Your task to perform on an android device: move a message to another label in the gmail app Image 0: 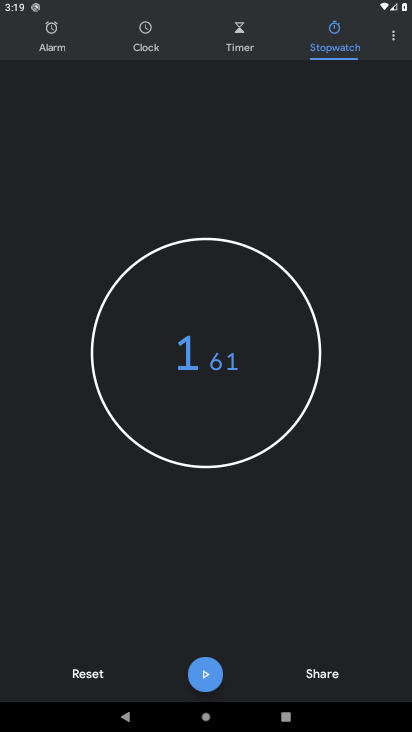
Step 0: press home button
Your task to perform on an android device: move a message to another label in the gmail app Image 1: 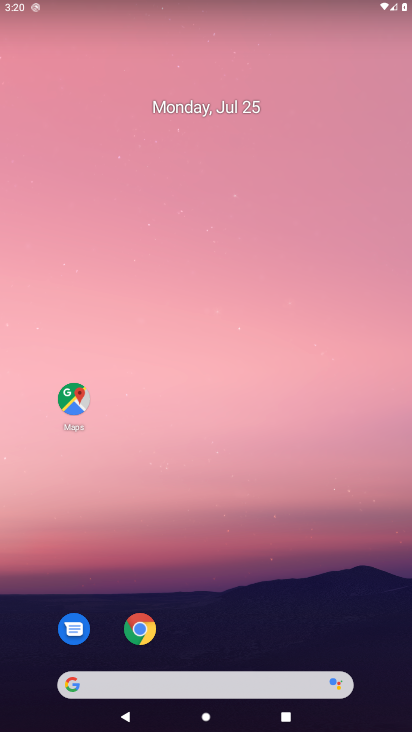
Step 1: drag from (2, 668) to (104, 216)
Your task to perform on an android device: move a message to another label in the gmail app Image 2: 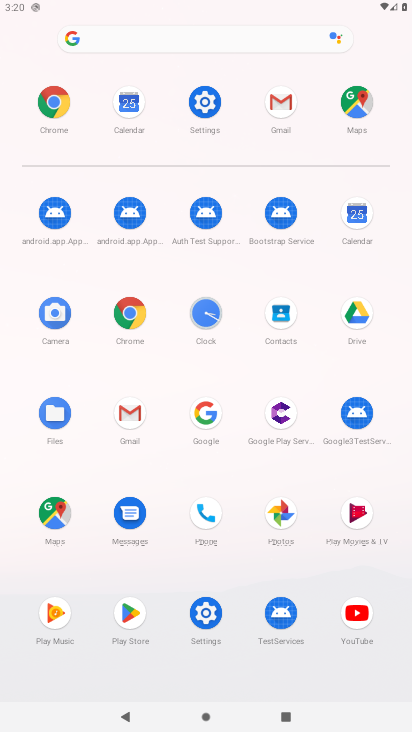
Step 2: click (130, 418)
Your task to perform on an android device: move a message to another label in the gmail app Image 3: 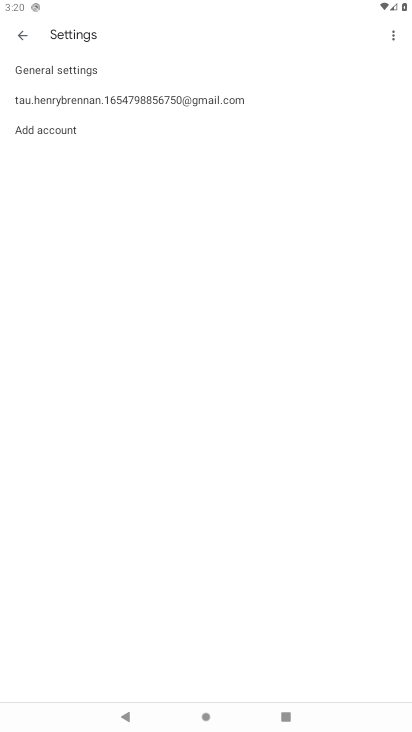
Step 3: click (13, 29)
Your task to perform on an android device: move a message to another label in the gmail app Image 4: 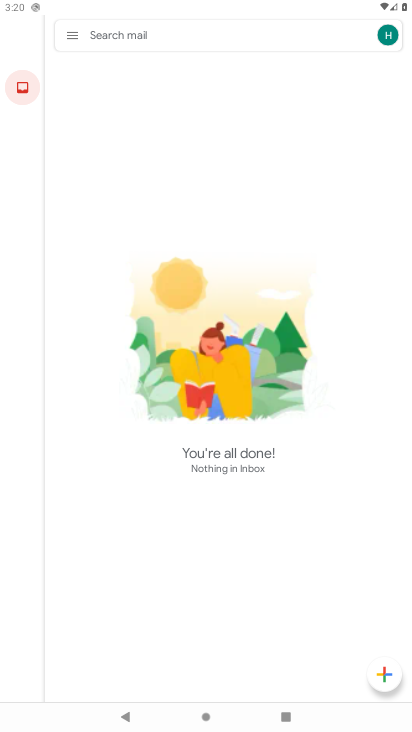
Step 4: click (79, 23)
Your task to perform on an android device: move a message to another label in the gmail app Image 5: 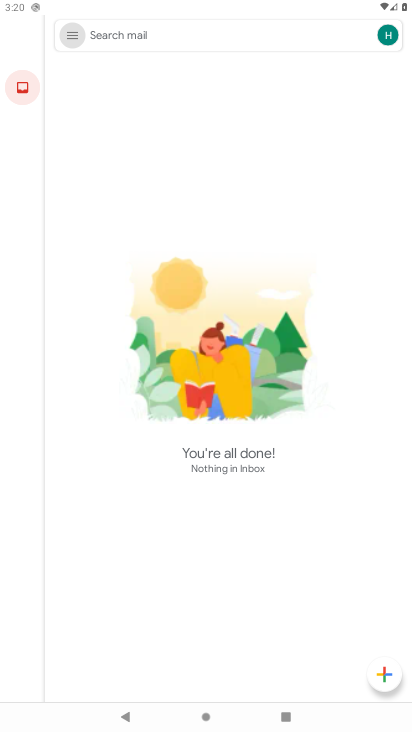
Step 5: click (75, 28)
Your task to perform on an android device: move a message to another label in the gmail app Image 6: 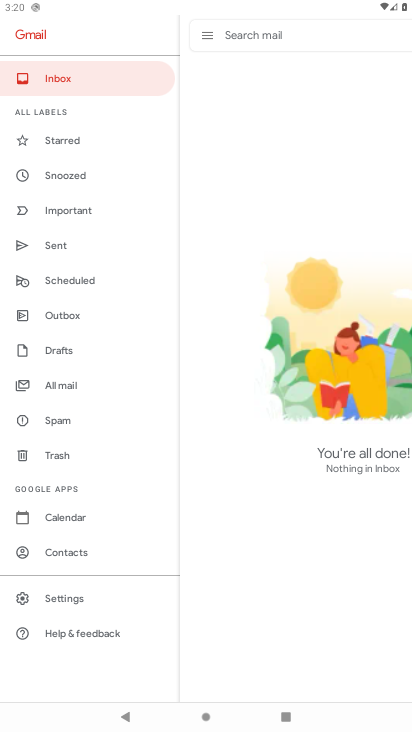
Step 6: click (76, 81)
Your task to perform on an android device: move a message to another label in the gmail app Image 7: 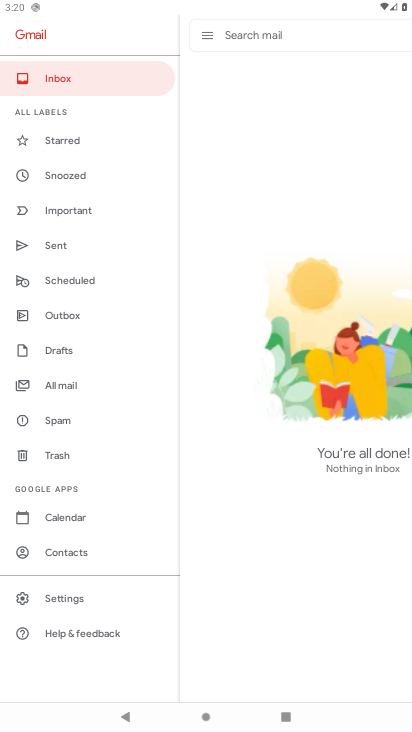
Step 7: click (77, 77)
Your task to perform on an android device: move a message to another label in the gmail app Image 8: 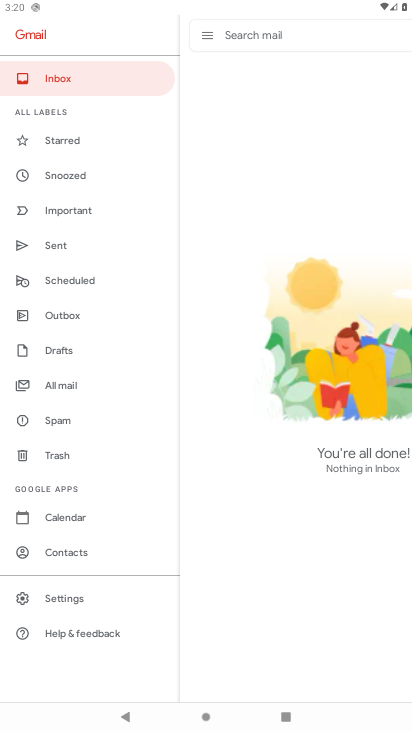
Step 8: task complete